Your task to perform on an android device: turn off improve location accuracy Image 0: 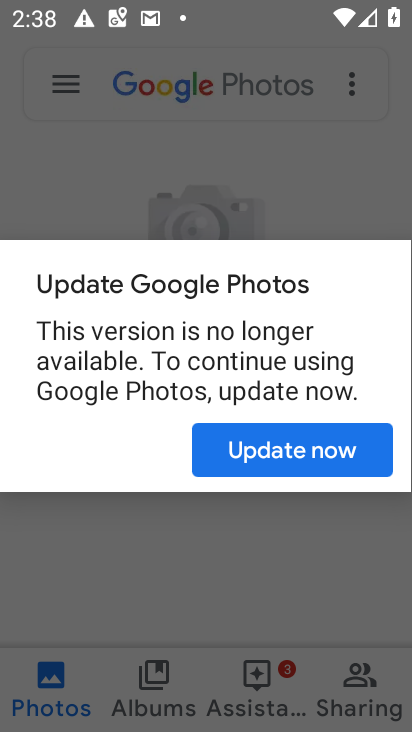
Step 0: press home button
Your task to perform on an android device: turn off improve location accuracy Image 1: 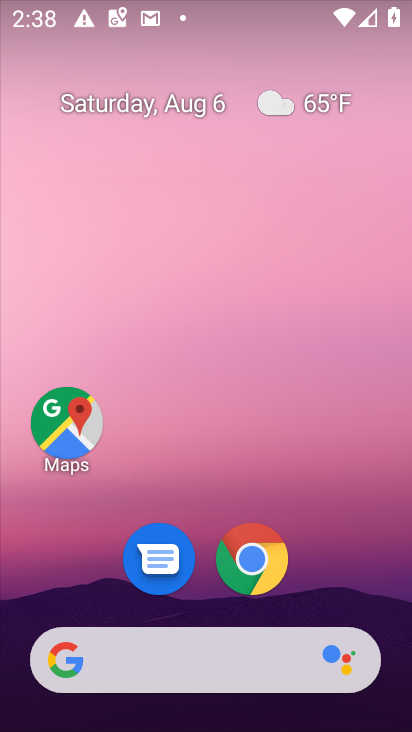
Step 1: drag from (255, 434) to (264, 100)
Your task to perform on an android device: turn off improve location accuracy Image 2: 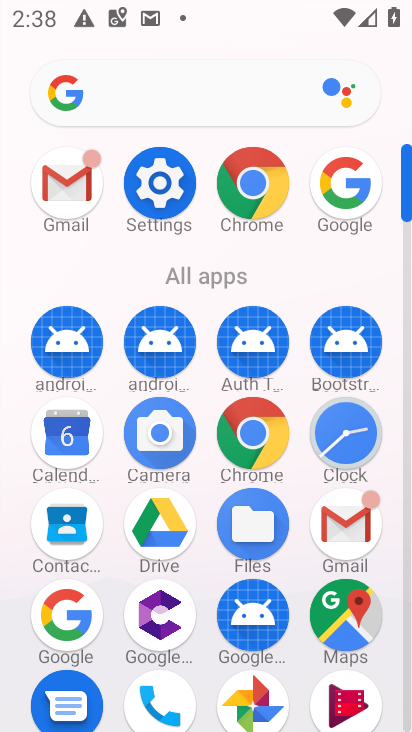
Step 2: click (153, 202)
Your task to perform on an android device: turn off improve location accuracy Image 3: 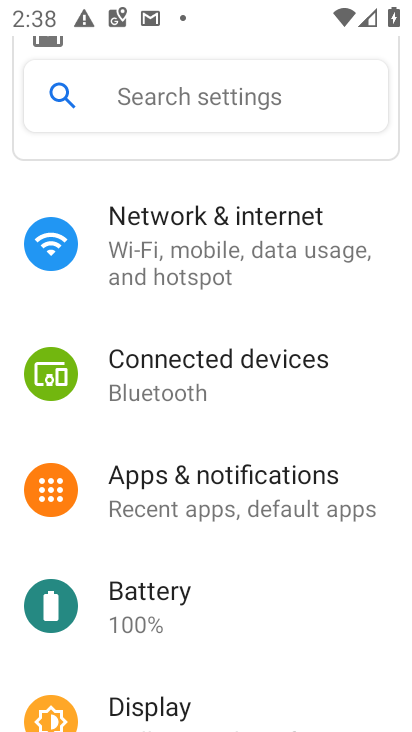
Step 3: drag from (243, 641) to (242, 255)
Your task to perform on an android device: turn off improve location accuracy Image 4: 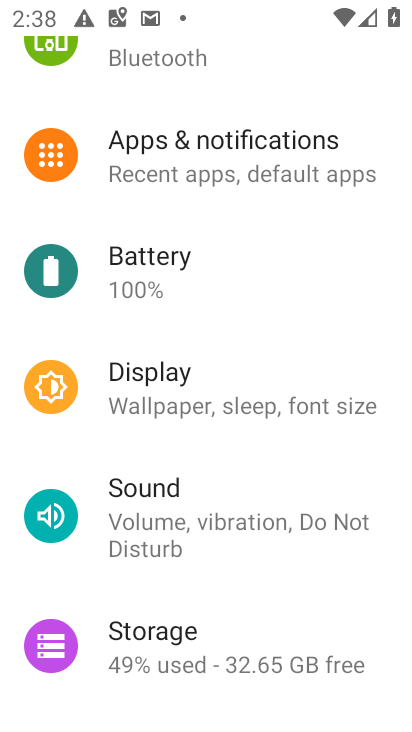
Step 4: drag from (194, 594) to (194, 262)
Your task to perform on an android device: turn off improve location accuracy Image 5: 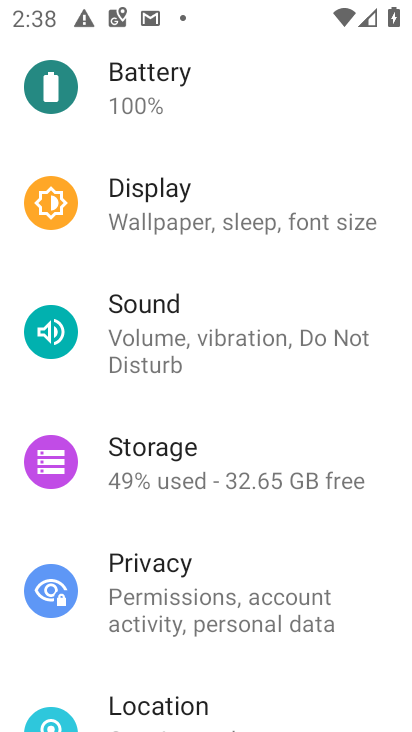
Step 5: drag from (189, 616) to (191, 272)
Your task to perform on an android device: turn off improve location accuracy Image 6: 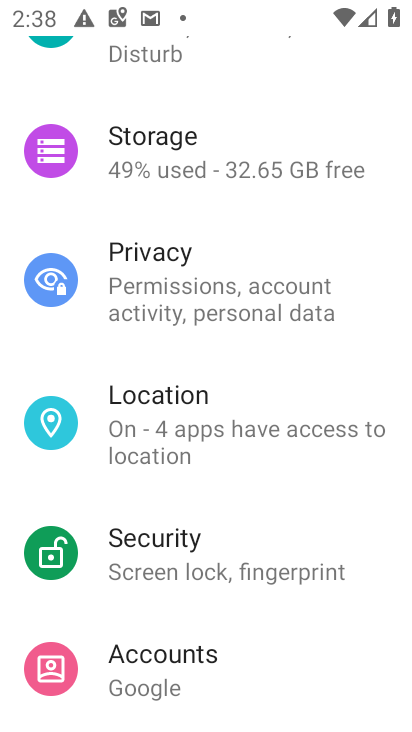
Step 6: click (182, 437)
Your task to perform on an android device: turn off improve location accuracy Image 7: 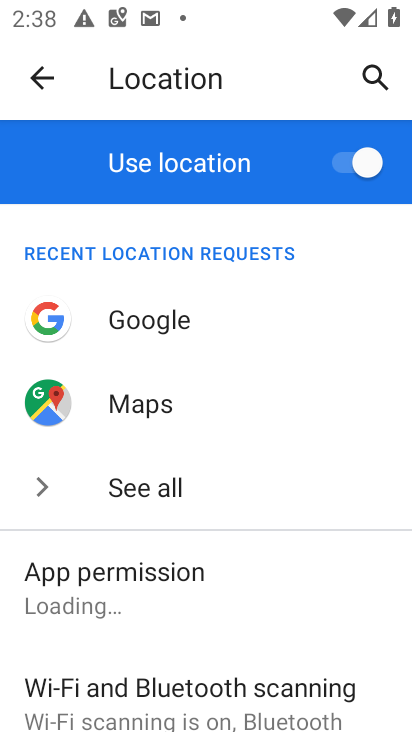
Step 7: drag from (238, 460) to (238, 227)
Your task to perform on an android device: turn off improve location accuracy Image 8: 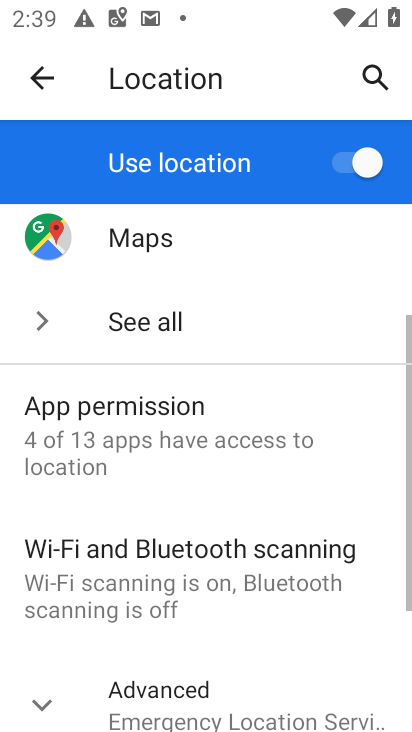
Step 8: click (196, 667)
Your task to perform on an android device: turn off improve location accuracy Image 9: 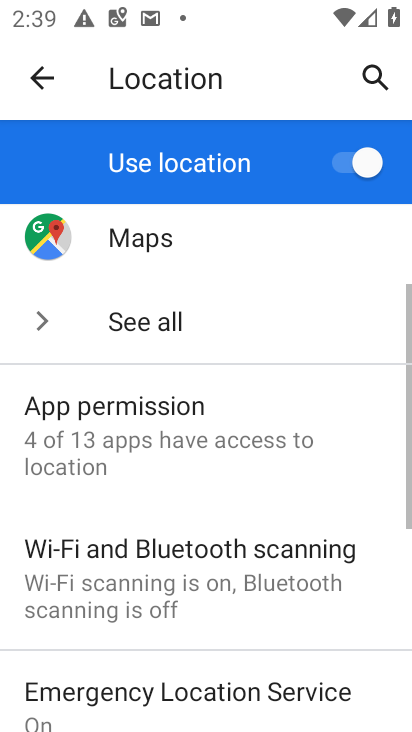
Step 9: drag from (228, 638) to (245, 282)
Your task to perform on an android device: turn off improve location accuracy Image 10: 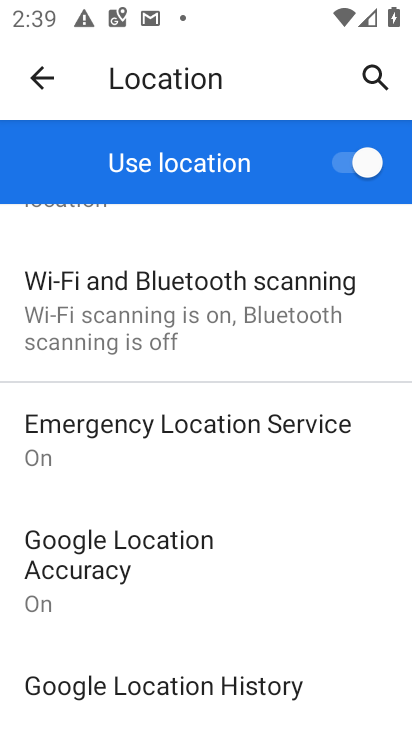
Step 10: drag from (244, 488) to (244, 301)
Your task to perform on an android device: turn off improve location accuracy Image 11: 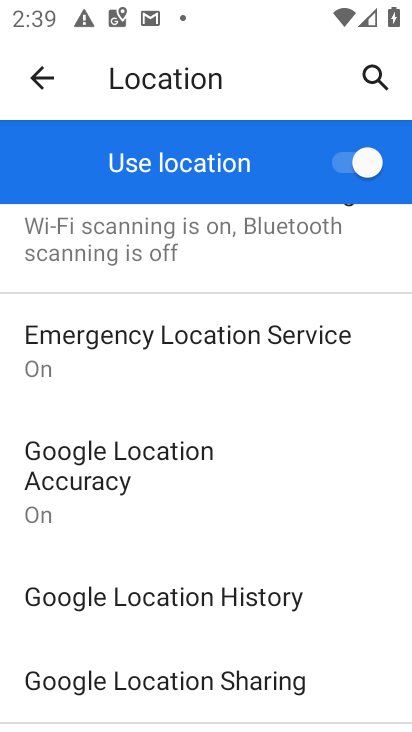
Step 11: drag from (234, 620) to (253, 297)
Your task to perform on an android device: turn off improve location accuracy Image 12: 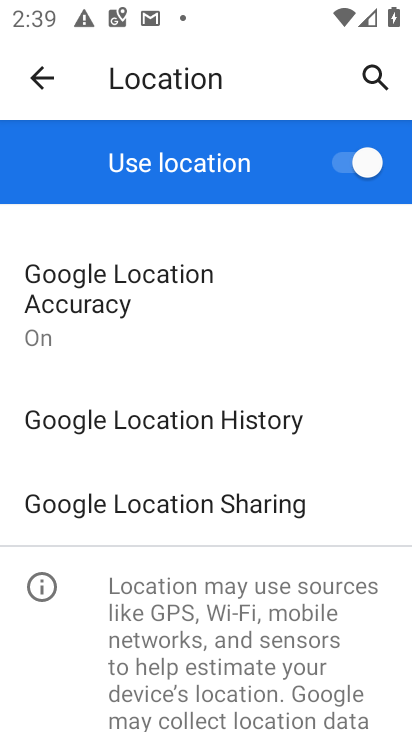
Step 12: click (168, 309)
Your task to perform on an android device: turn off improve location accuracy Image 13: 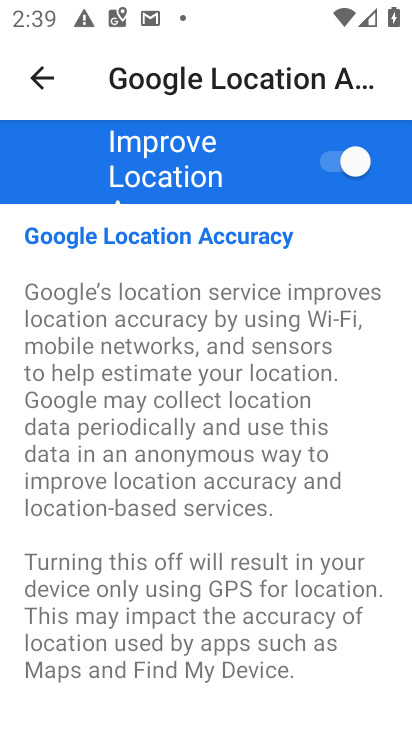
Step 13: click (329, 164)
Your task to perform on an android device: turn off improve location accuracy Image 14: 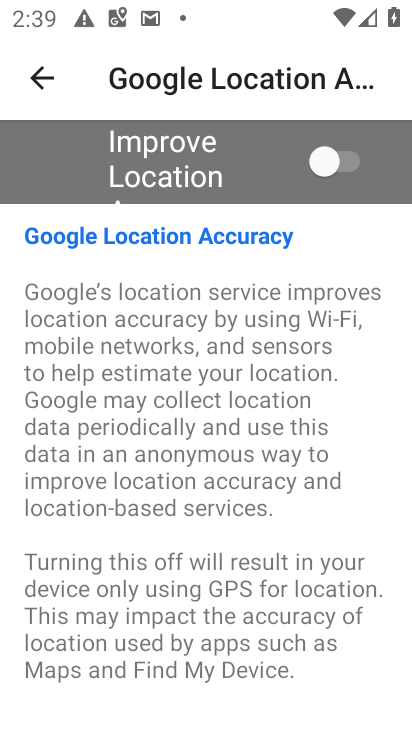
Step 14: task complete